Your task to perform on an android device: refresh tabs in the chrome app Image 0: 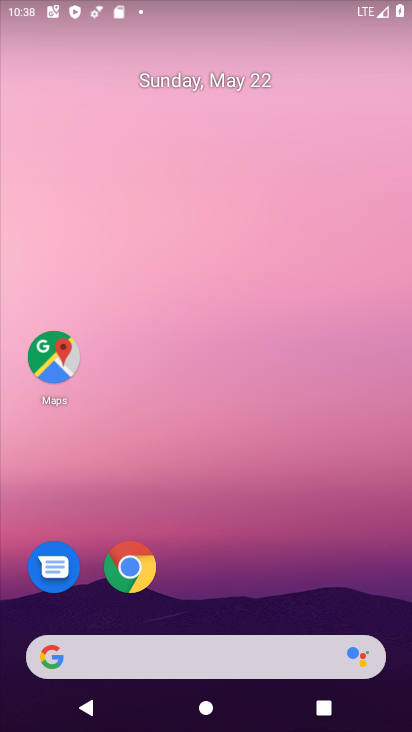
Step 0: click (128, 572)
Your task to perform on an android device: refresh tabs in the chrome app Image 1: 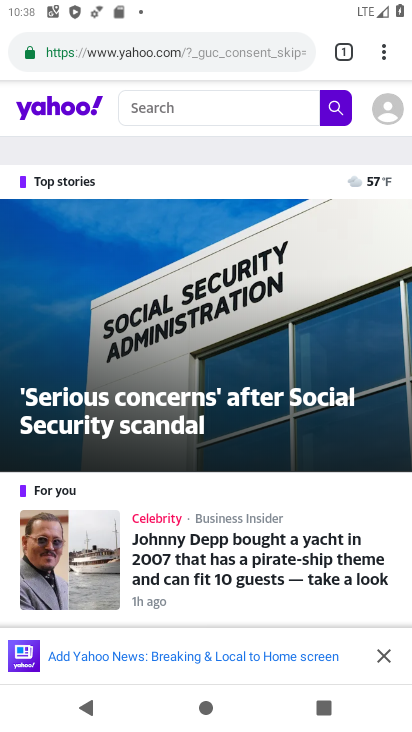
Step 1: click (382, 54)
Your task to perform on an android device: refresh tabs in the chrome app Image 2: 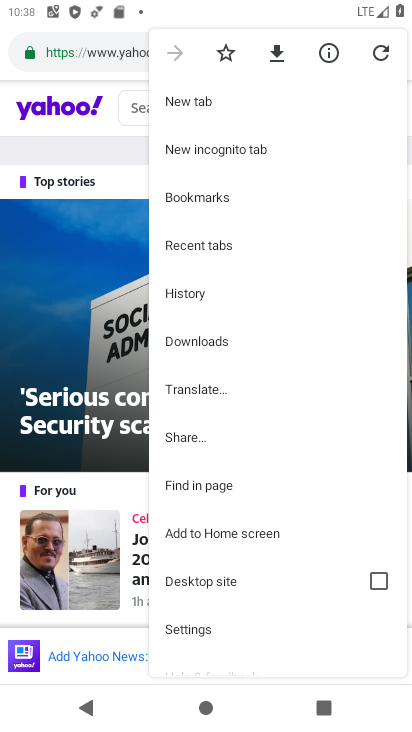
Step 2: click (381, 56)
Your task to perform on an android device: refresh tabs in the chrome app Image 3: 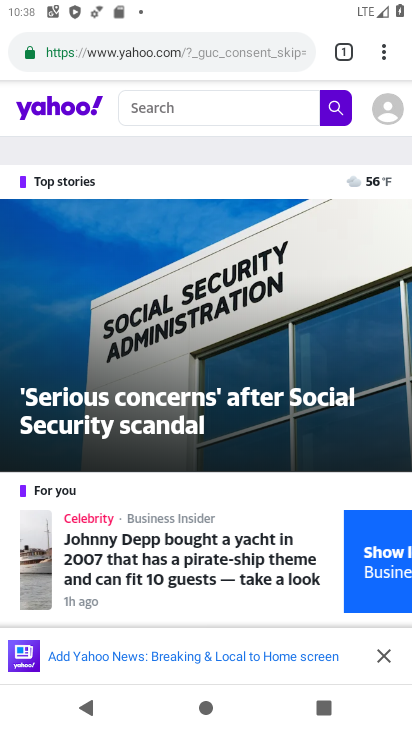
Step 3: task complete